Your task to perform on an android device: Open Maps and search for coffee Image 0: 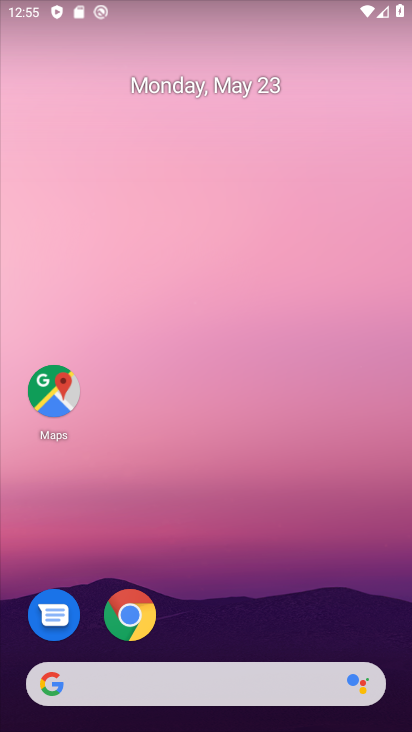
Step 0: drag from (189, 714) to (185, 110)
Your task to perform on an android device: Open Maps and search for coffee Image 1: 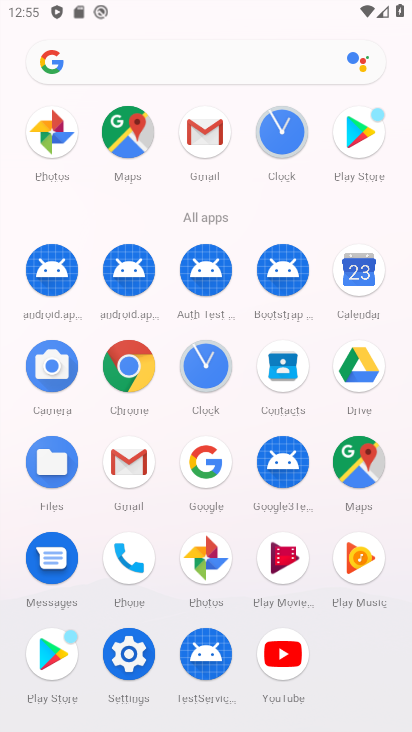
Step 1: click (364, 464)
Your task to perform on an android device: Open Maps and search for coffee Image 2: 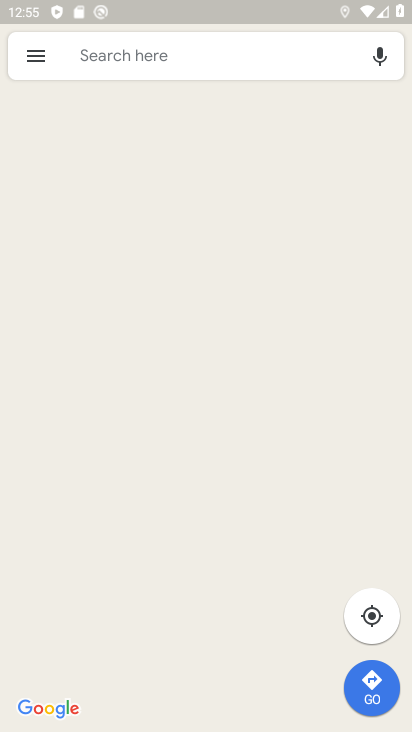
Step 2: click (193, 65)
Your task to perform on an android device: Open Maps and search for coffee Image 3: 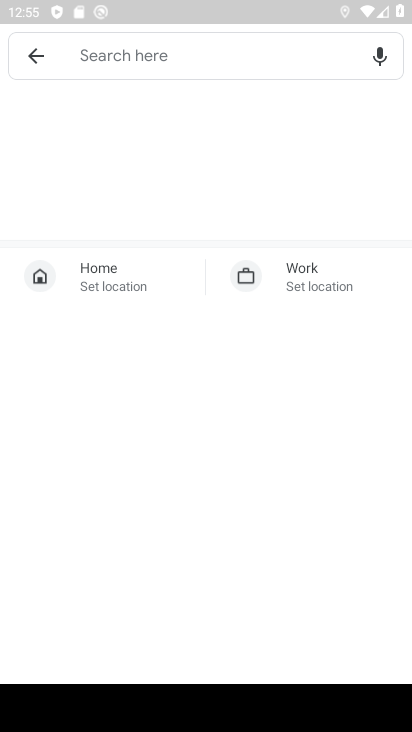
Step 3: type "coffee"
Your task to perform on an android device: Open Maps and search for coffee Image 4: 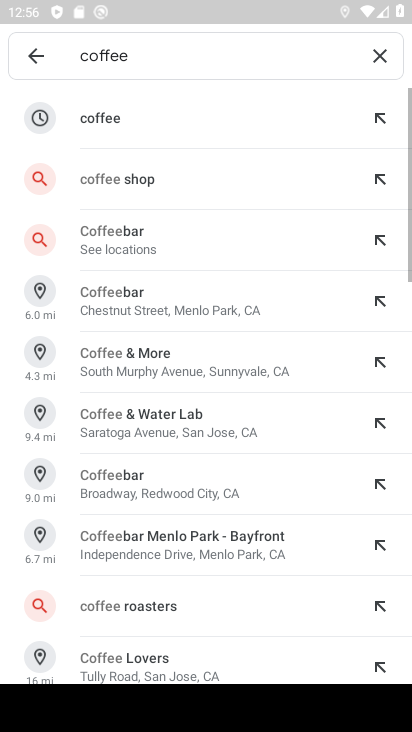
Step 4: click (88, 120)
Your task to perform on an android device: Open Maps and search for coffee Image 5: 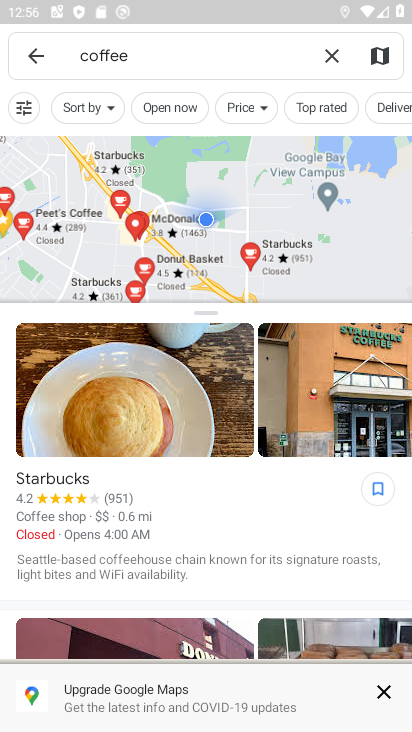
Step 5: task complete